Your task to perform on an android device: set the stopwatch Image 0: 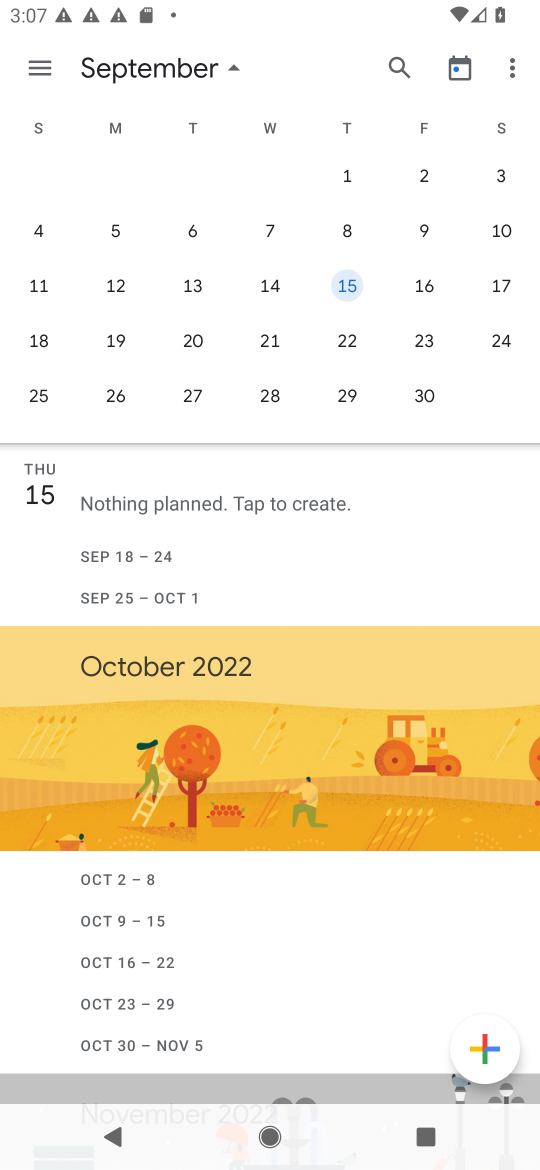
Step 0: press home button
Your task to perform on an android device: set the stopwatch Image 1: 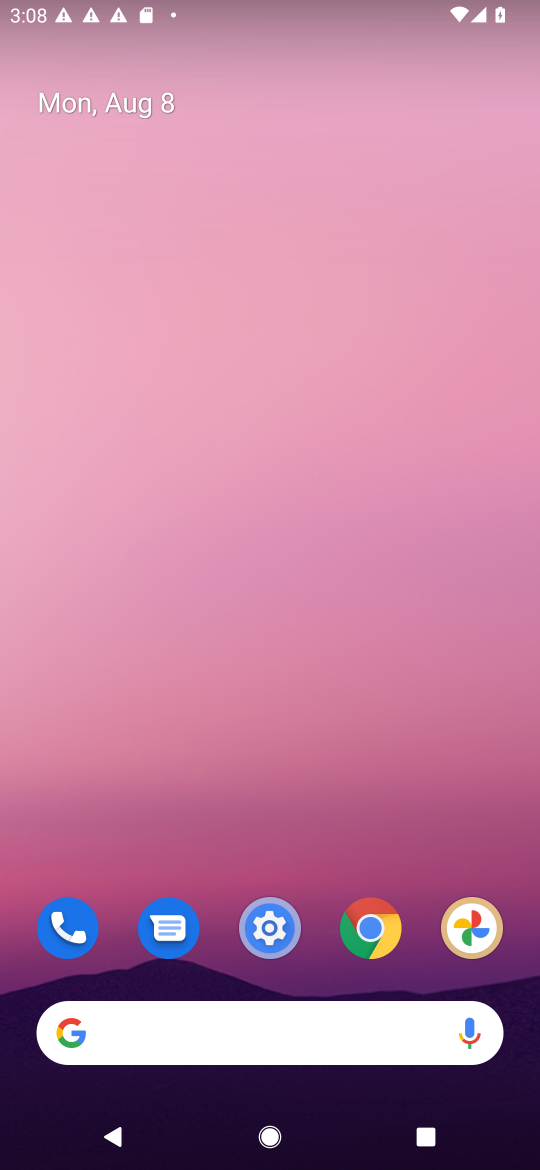
Step 1: drag from (323, 856) to (314, 58)
Your task to perform on an android device: set the stopwatch Image 2: 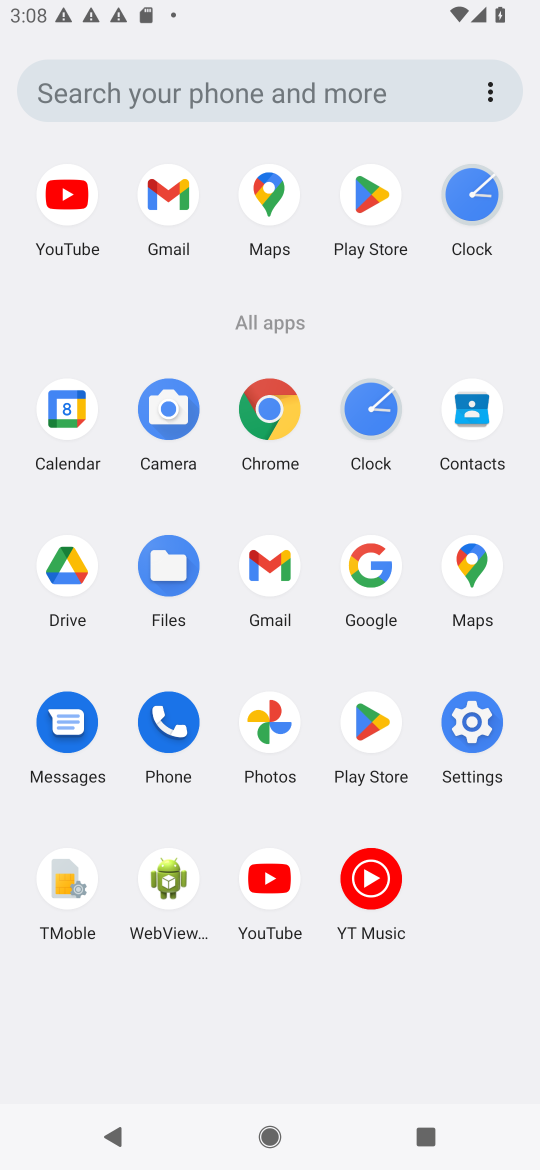
Step 2: click (370, 403)
Your task to perform on an android device: set the stopwatch Image 3: 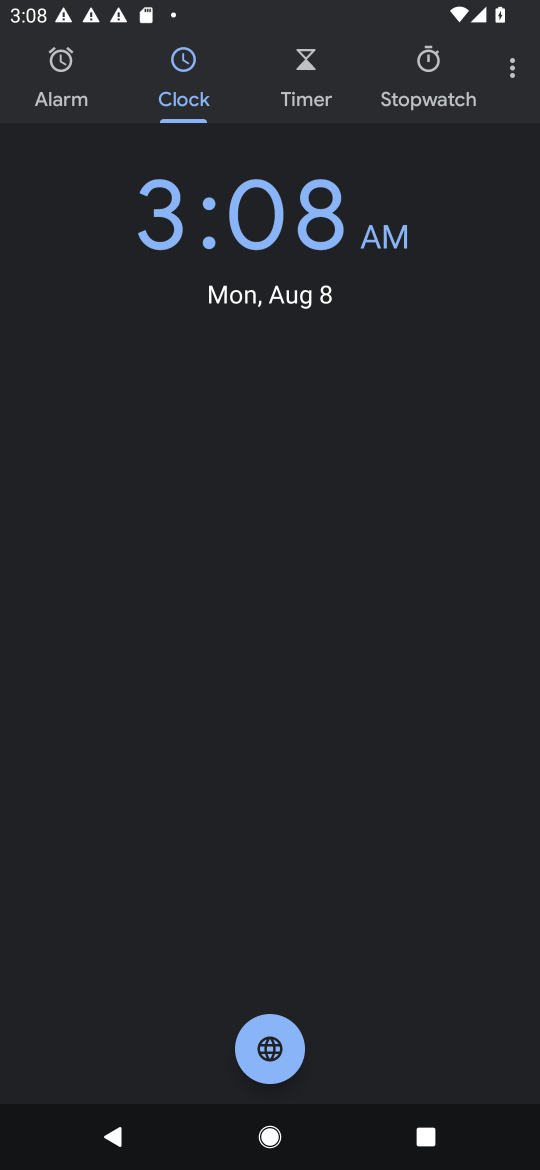
Step 3: click (417, 76)
Your task to perform on an android device: set the stopwatch Image 4: 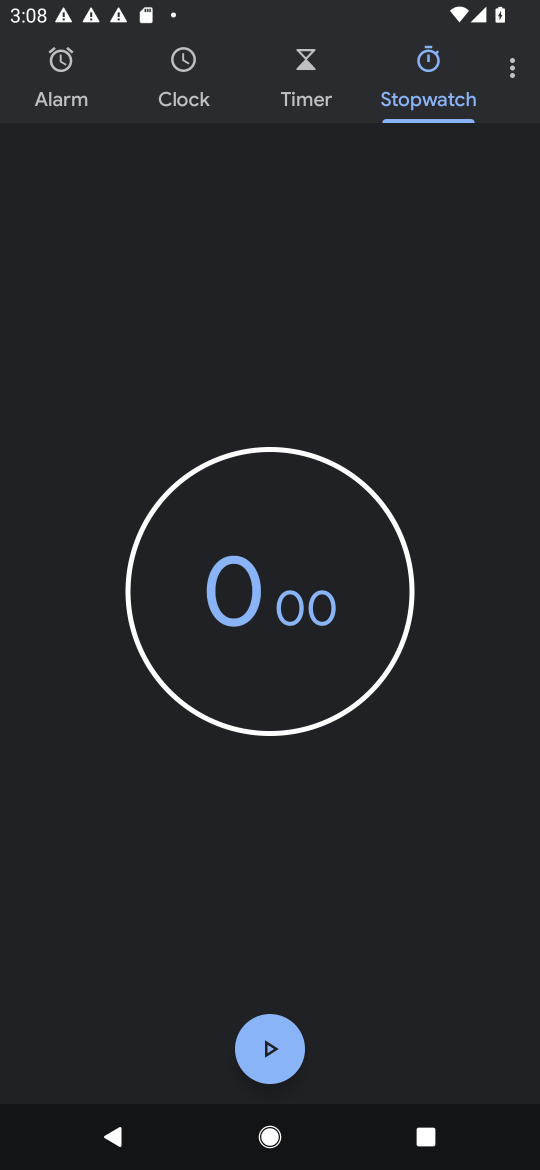
Step 4: click (275, 1036)
Your task to perform on an android device: set the stopwatch Image 5: 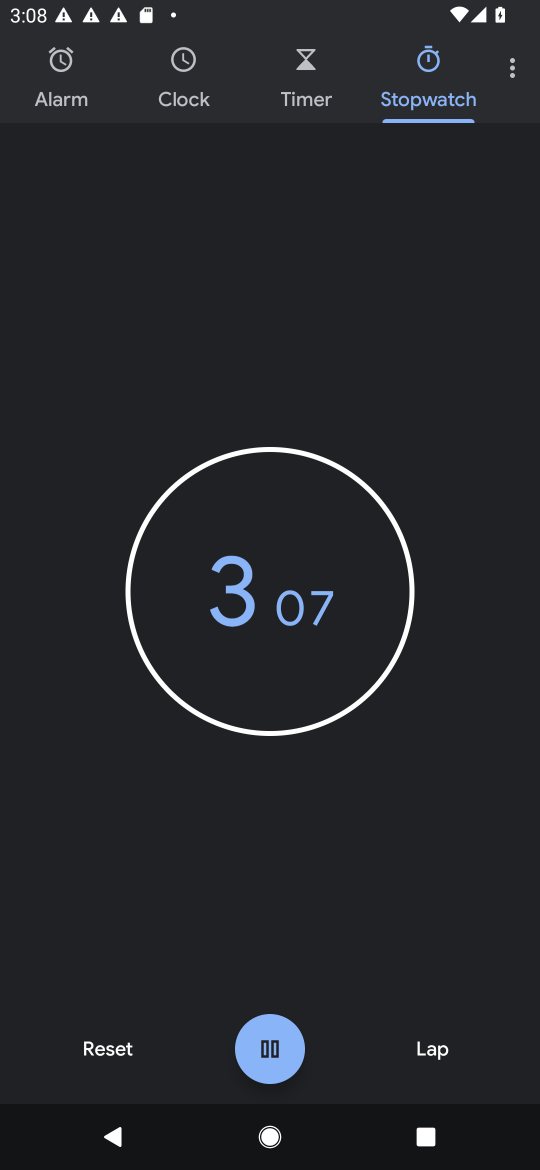
Step 5: task complete